Your task to perform on an android device: Go to CNN.com Image 0: 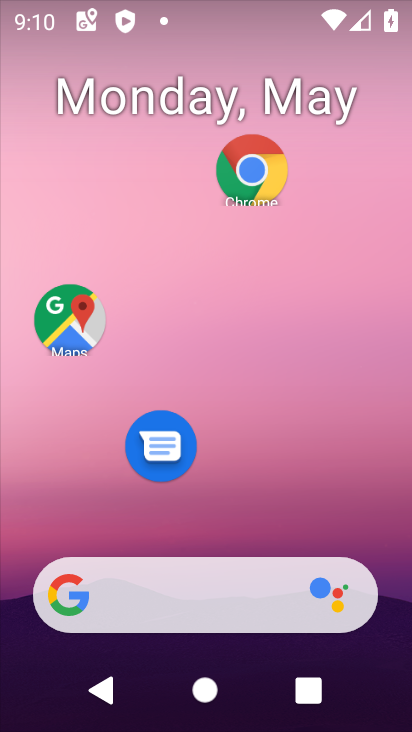
Step 0: press home button
Your task to perform on an android device: Go to CNN.com Image 1: 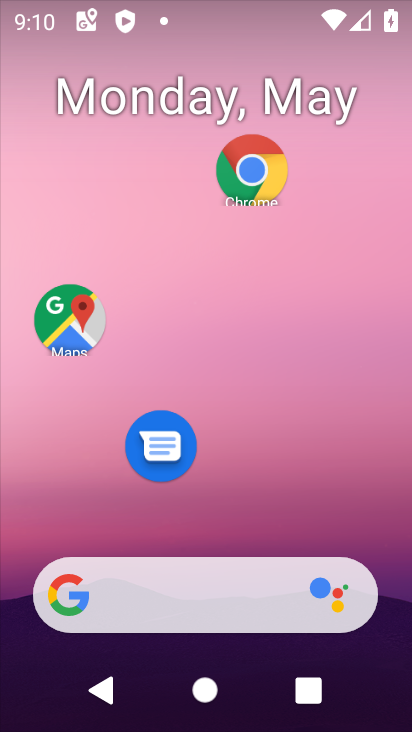
Step 1: click (249, 163)
Your task to perform on an android device: Go to CNN.com Image 2: 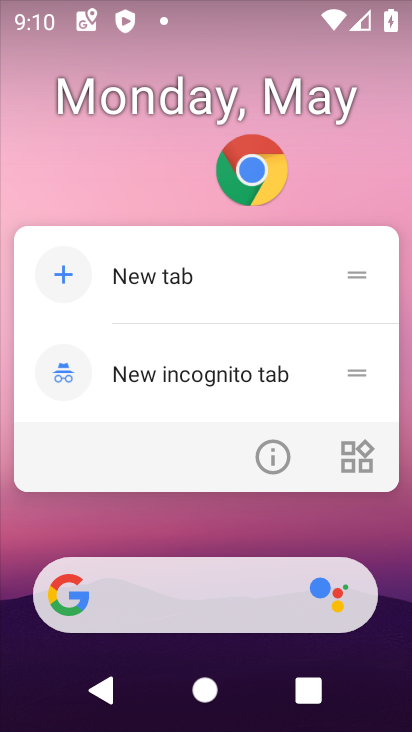
Step 2: click (249, 163)
Your task to perform on an android device: Go to CNN.com Image 3: 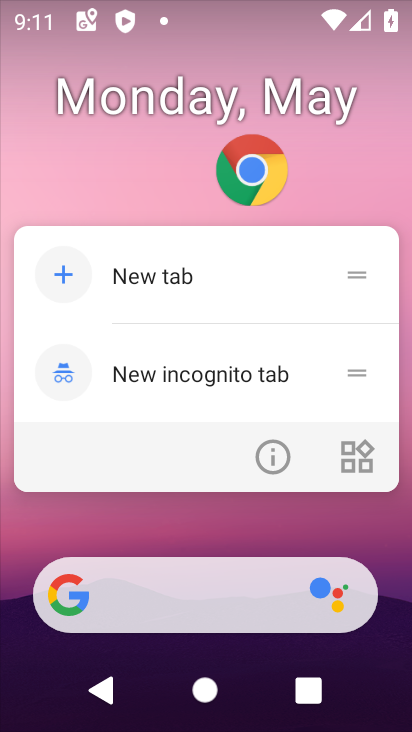
Step 3: click (249, 163)
Your task to perform on an android device: Go to CNN.com Image 4: 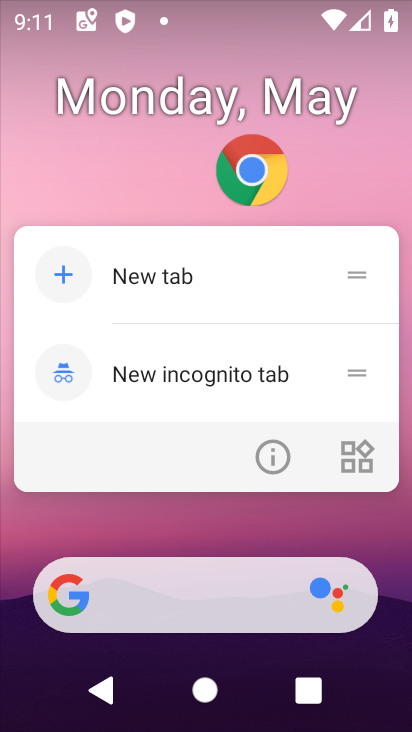
Step 4: click (253, 161)
Your task to perform on an android device: Go to CNN.com Image 5: 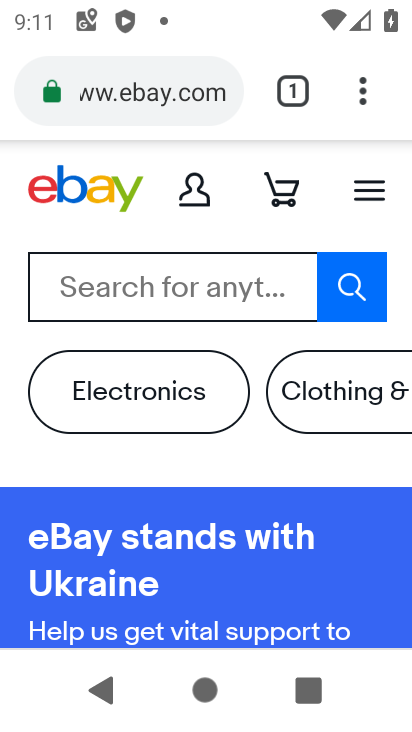
Step 5: click (292, 79)
Your task to perform on an android device: Go to CNN.com Image 6: 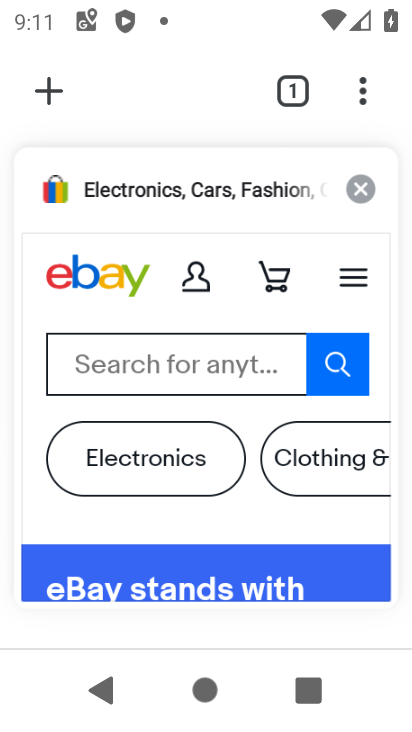
Step 6: click (49, 89)
Your task to perform on an android device: Go to CNN.com Image 7: 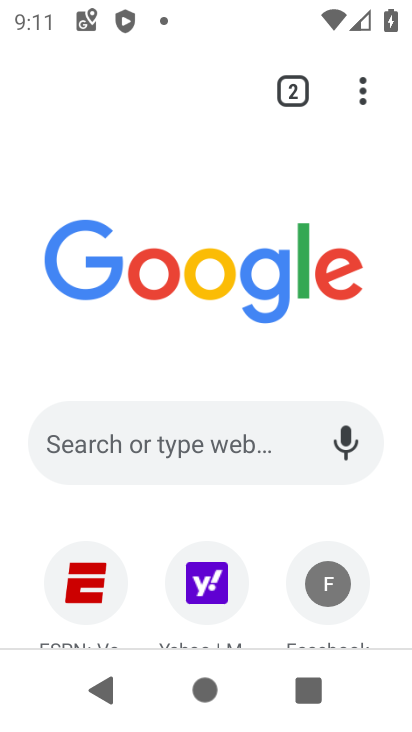
Step 7: click (198, 435)
Your task to perform on an android device: Go to CNN.com Image 8: 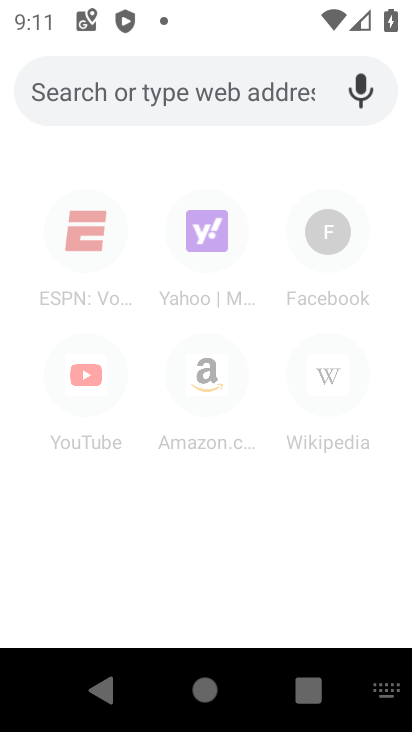
Step 8: type "cnn.com"
Your task to perform on an android device: Go to CNN.com Image 9: 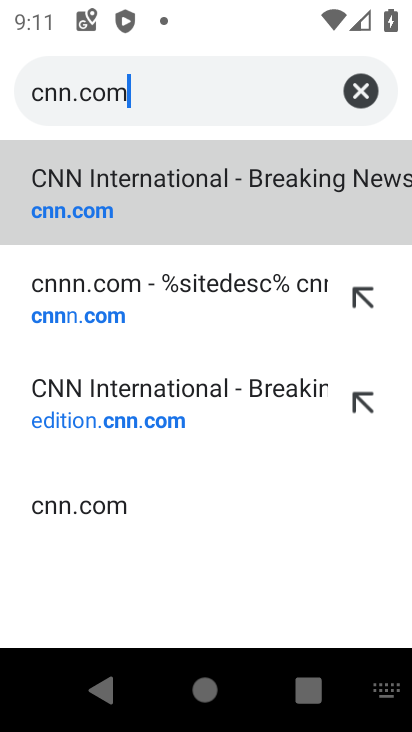
Step 9: click (132, 201)
Your task to perform on an android device: Go to CNN.com Image 10: 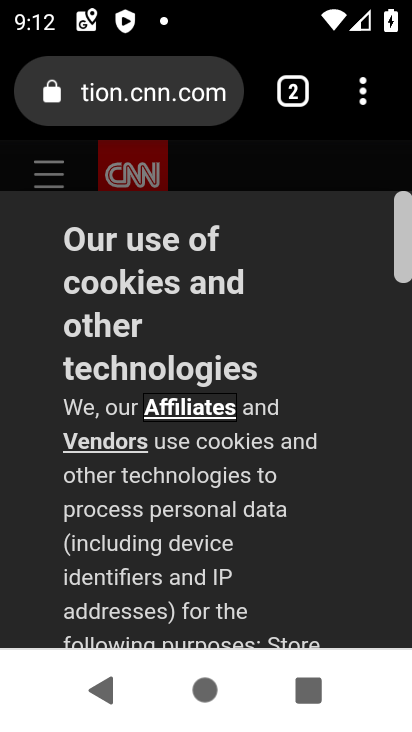
Step 10: drag from (234, 569) to (241, 111)
Your task to perform on an android device: Go to CNN.com Image 11: 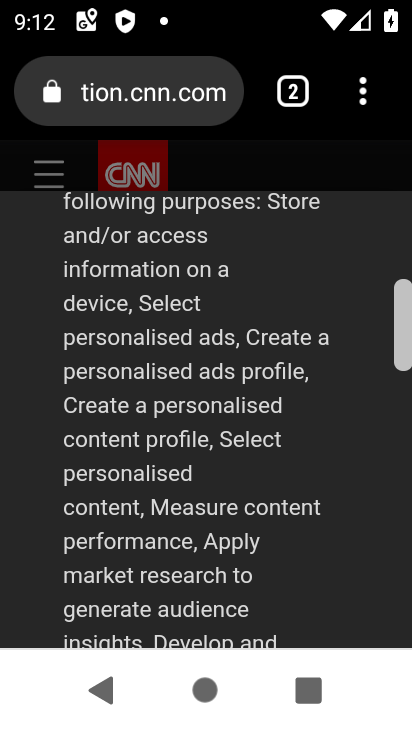
Step 11: drag from (202, 599) to (208, 144)
Your task to perform on an android device: Go to CNN.com Image 12: 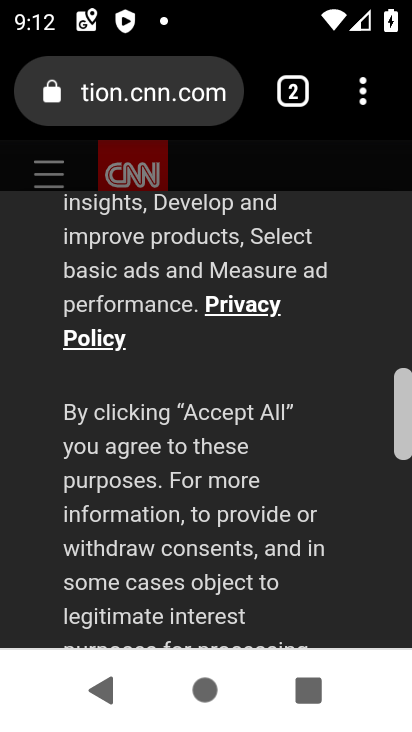
Step 12: drag from (217, 608) to (255, 183)
Your task to perform on an android device: Go to CNN.com Image 13: 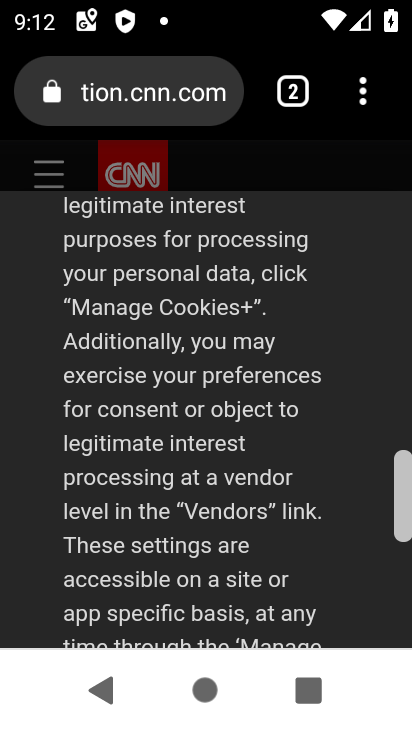
Step 13: drag from (228, 602) to (218, 213)
Your task to perform on an android device: Go to CNN.com Image 14: 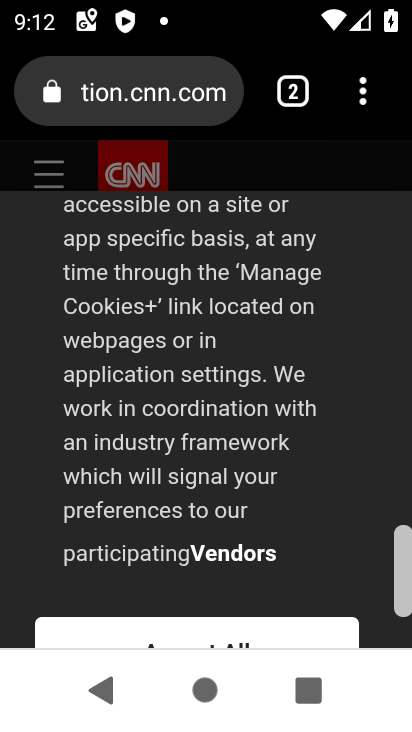
Step 14: click (255, 631)
Your task to perform on an android device: Go to CNN.com Image 15: 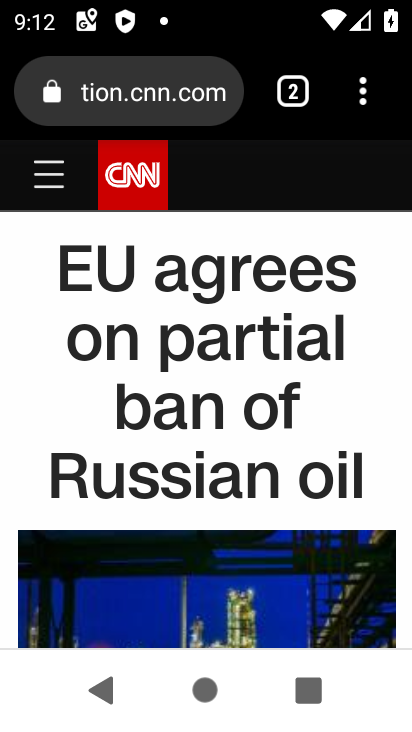
Step 15: task complete